Your task to perform on an android device: Turn on the flashlight Image 0: 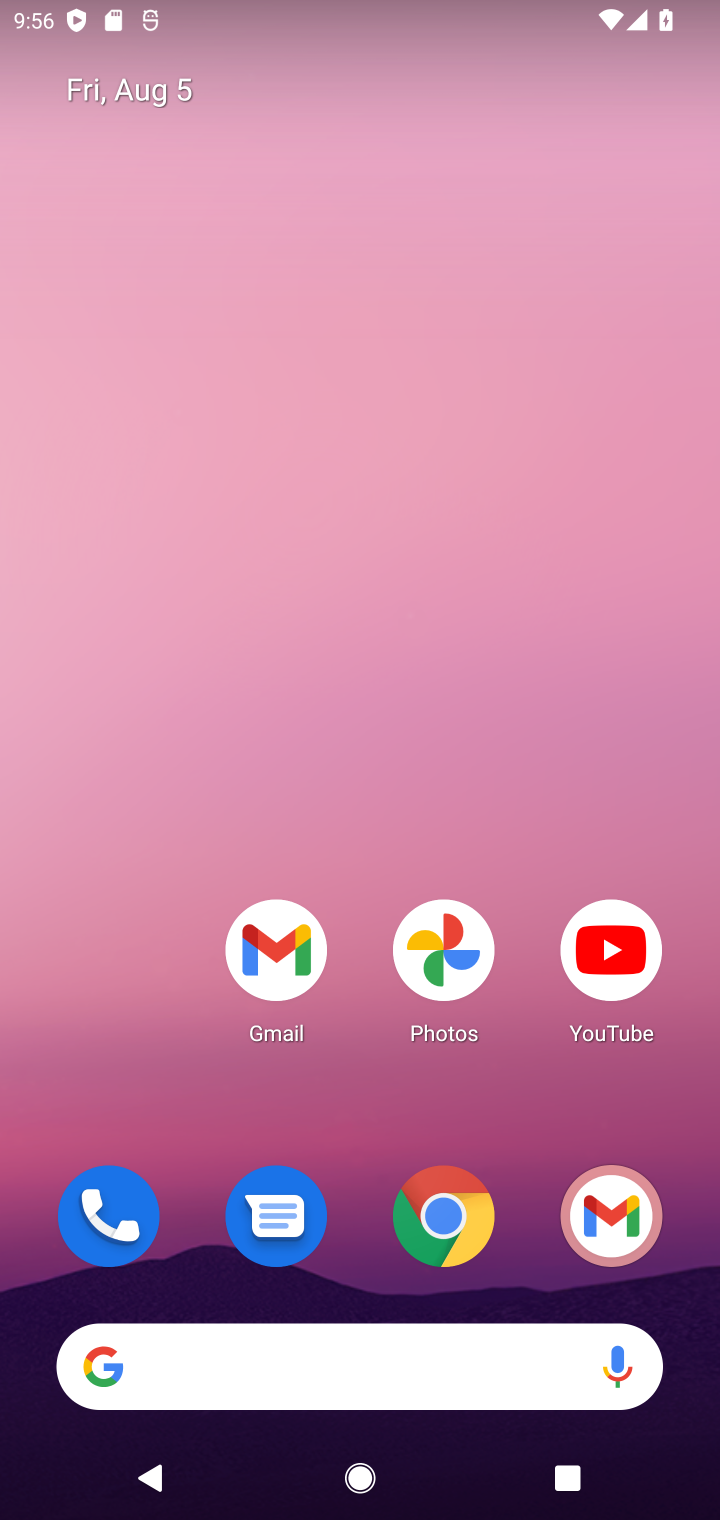
Step 0: drag from (334, 60) to (403, 1188)
Your task to perform on an android device: Turn on the flashlight Image 1: 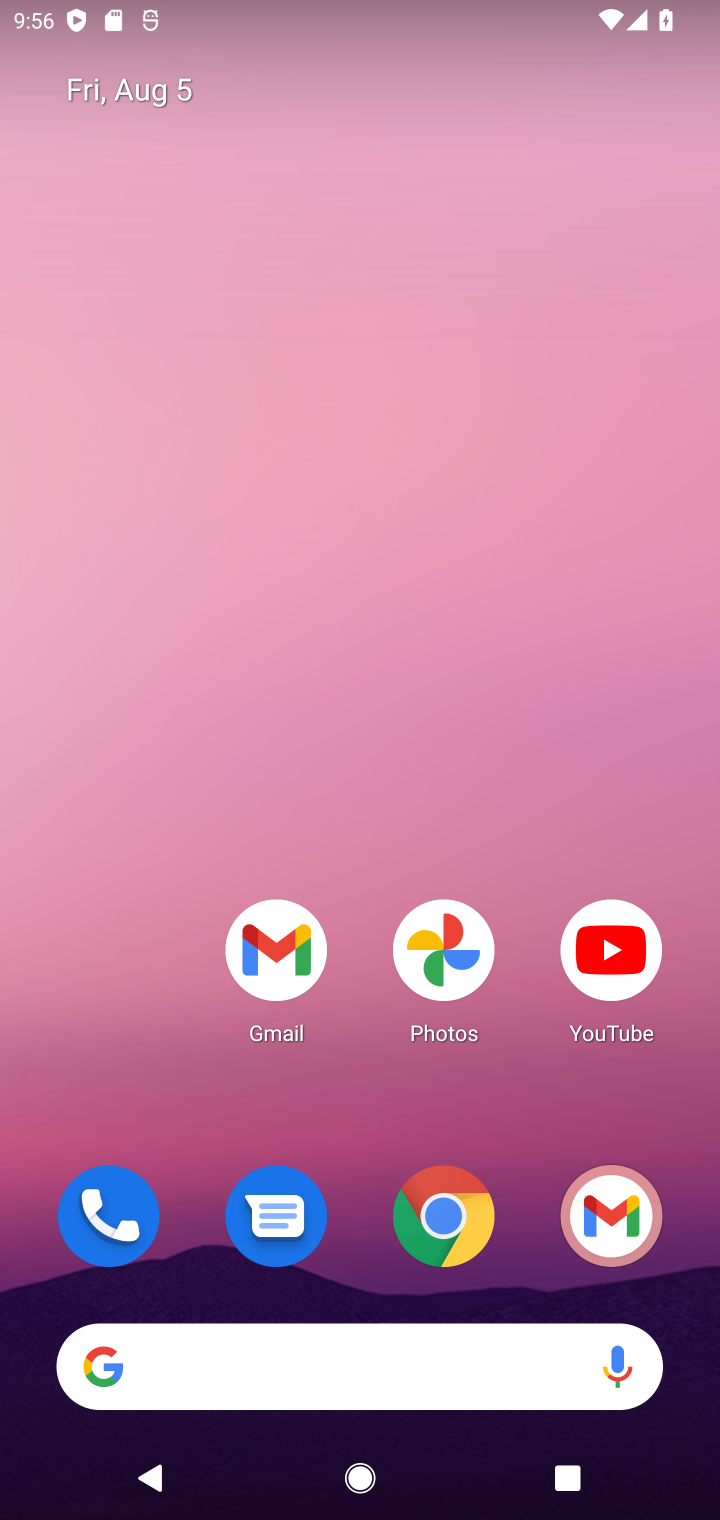
Step 1: drag from (391, 2) to (398, 1186)
Your task to perform on an android device: Turn on the flashlight Image 2: 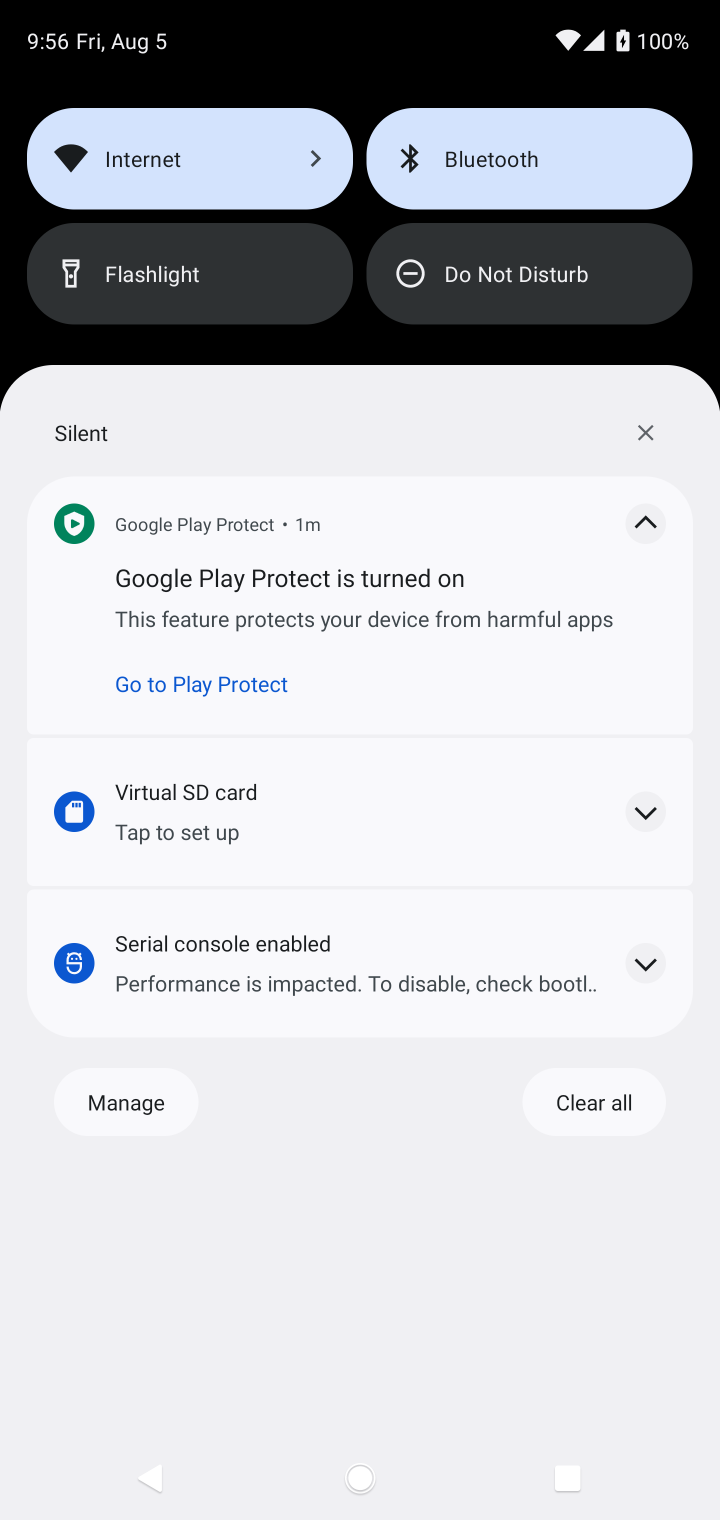
Step 2: click (219, 229)
Your task to perform on an android device: Turn on the flashlight Image 3: 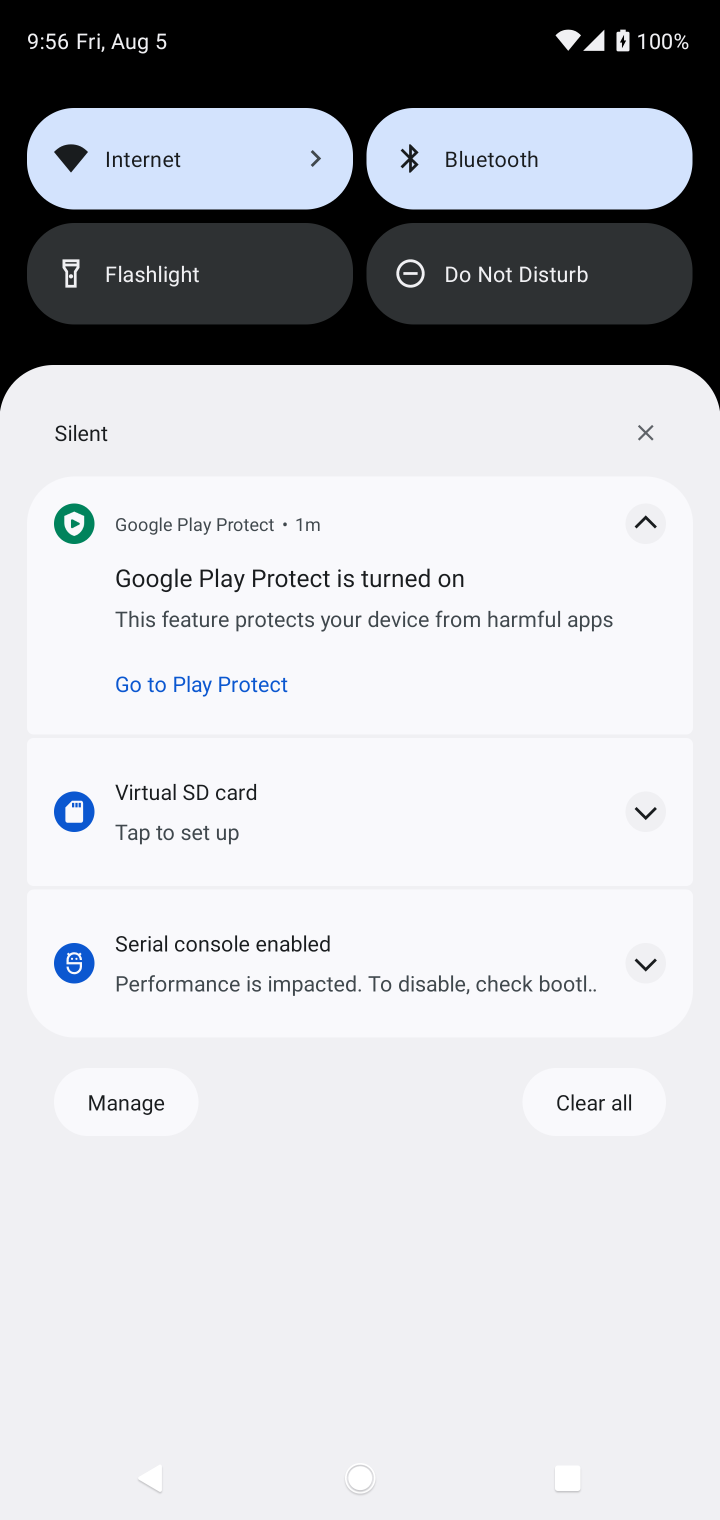
Step 3: task complete